Your task to perform on an android device: Open Amazon Image 0: 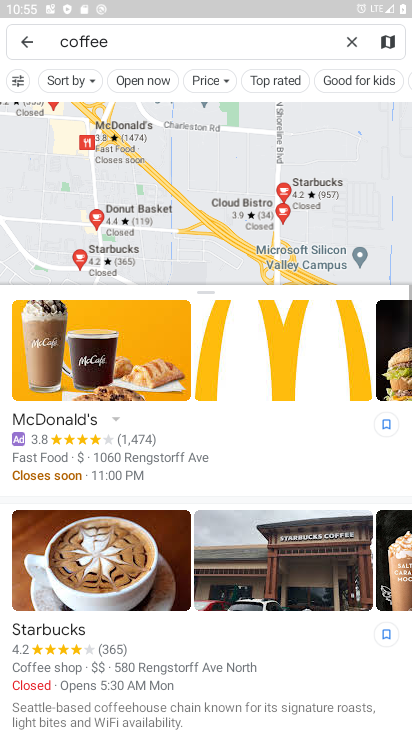
Step 0: press home button
Your task to perform on an android device: Open Amazon Image 1: 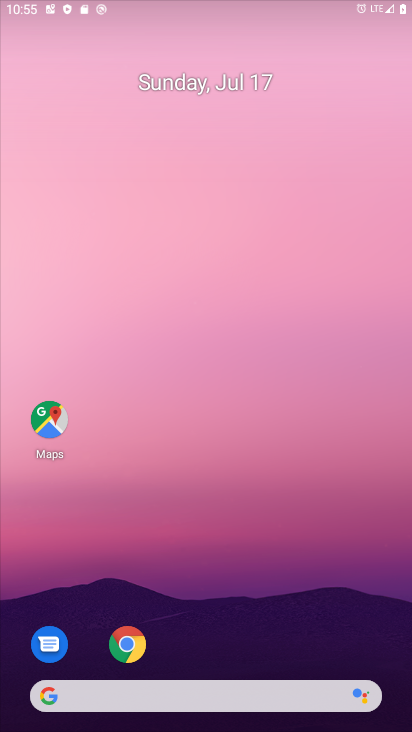
Step 1: drag from (380, 523) to (361, 51)
Your task to perform on an android device: Open Amazon Image 2: 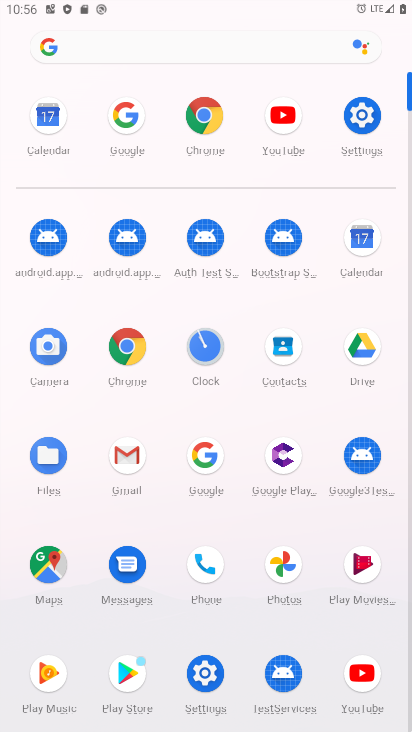
Step 2: click (206, 123)
Your task to perform on an android device: Open Amazon Image 3: 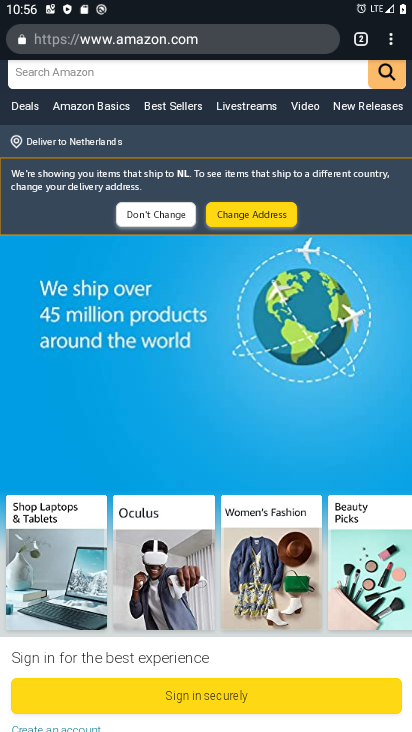
Step 3: task complete